Your task to perform on an android device: Go to eBay Image 0: 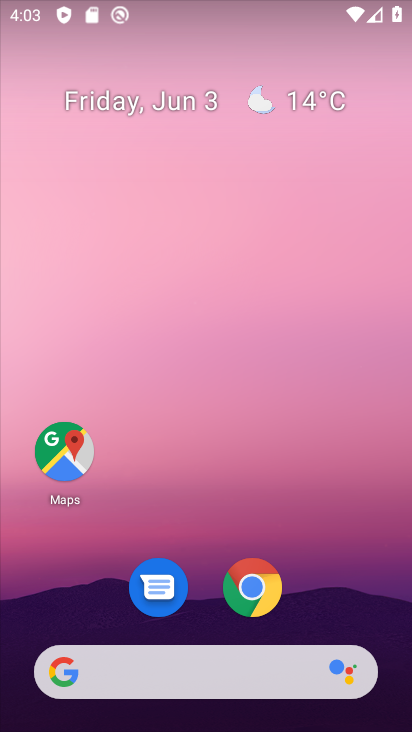
Step 0: click (258, 596)
Your task to perform on an android device: Go to eBay Image 1: 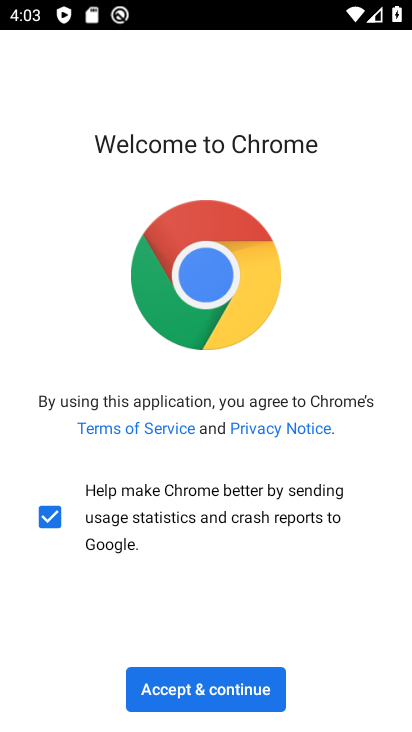
Step 1: click (202, 679)
Your task to perform on an android device: Go to eBay Image 2: 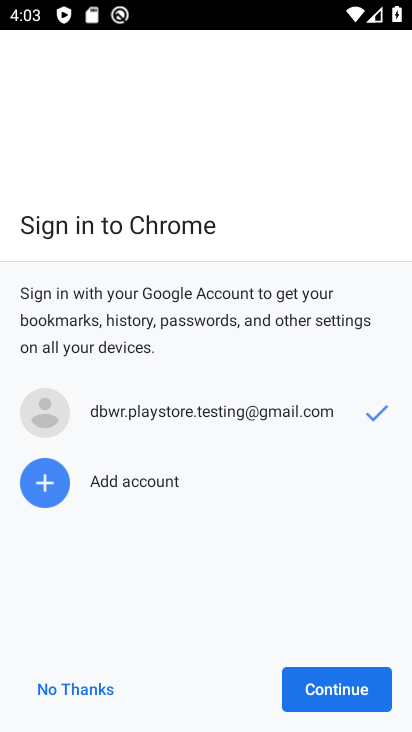
Step 2: click (317, 691)
Your task to perform on an android device: Go to eBay Image 3: 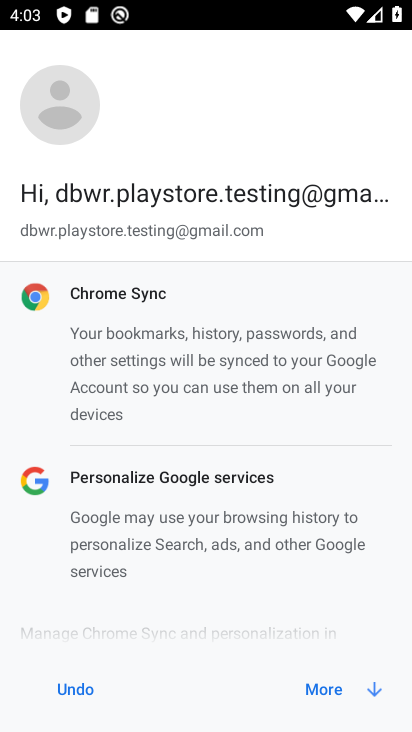
Step 3: click (317, 691)
Your task to perform on an android device: Go to eBay Image 4: 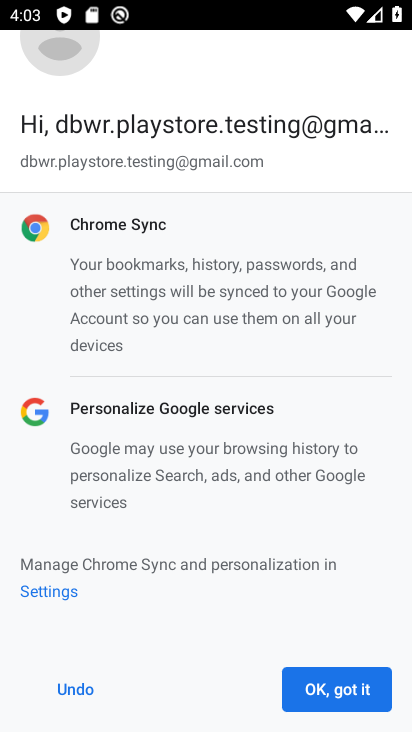
Step 4: click (317, 691)
Your task to perform on an android device: Go to eBay Image 5: 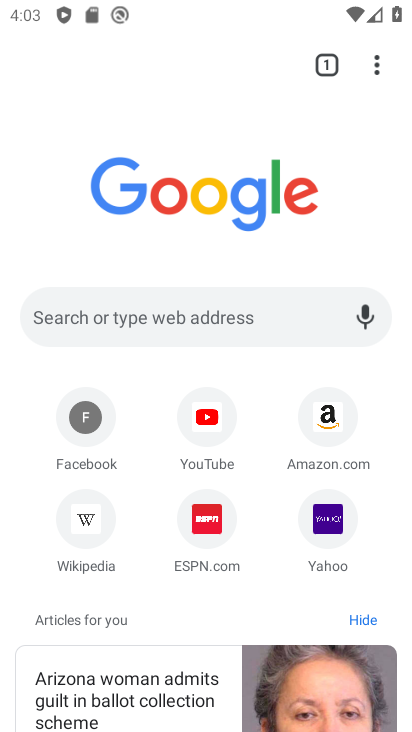
Step 5: click (202, 325)
Your task to perform on an android device: Go to eBay Image 6: 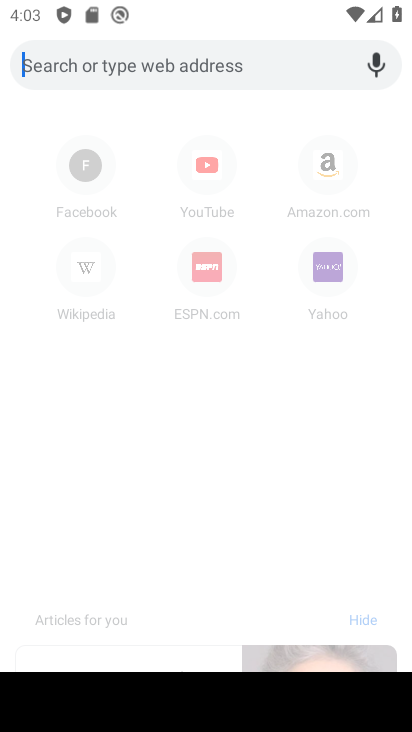
Step 6: type "ebay"
Your task to perform on an android device: Go to eBay Image 7: 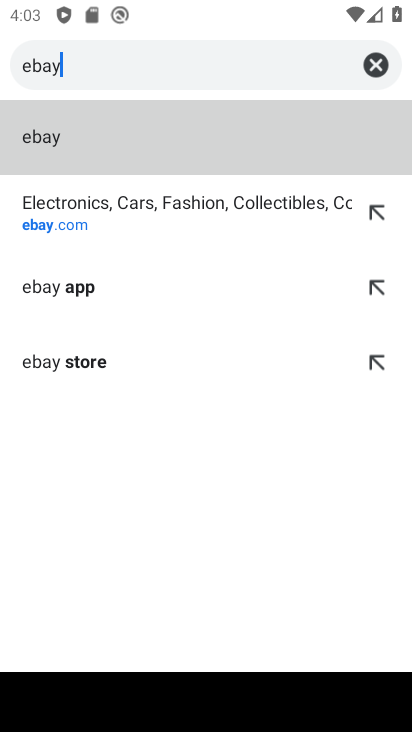
Step 7: click (124, 205)
Your task to perform on an android device: Go to eBay Image 8: 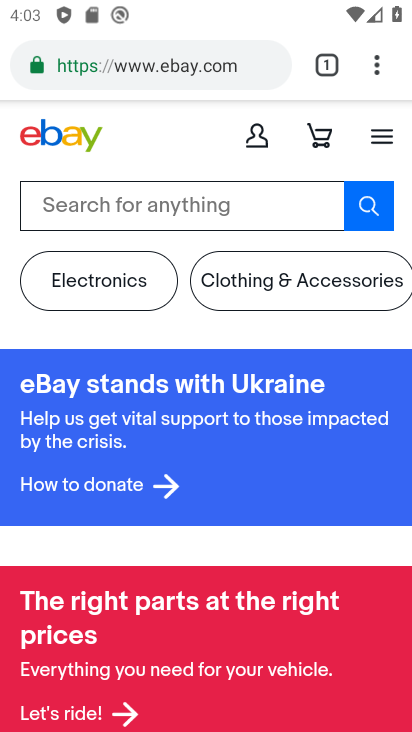
Step 8: task complete